Your task to perform on an android device: Search for "bose soundlink mini" on costco.com, select the first entry, and add it to the cart. Image 0: 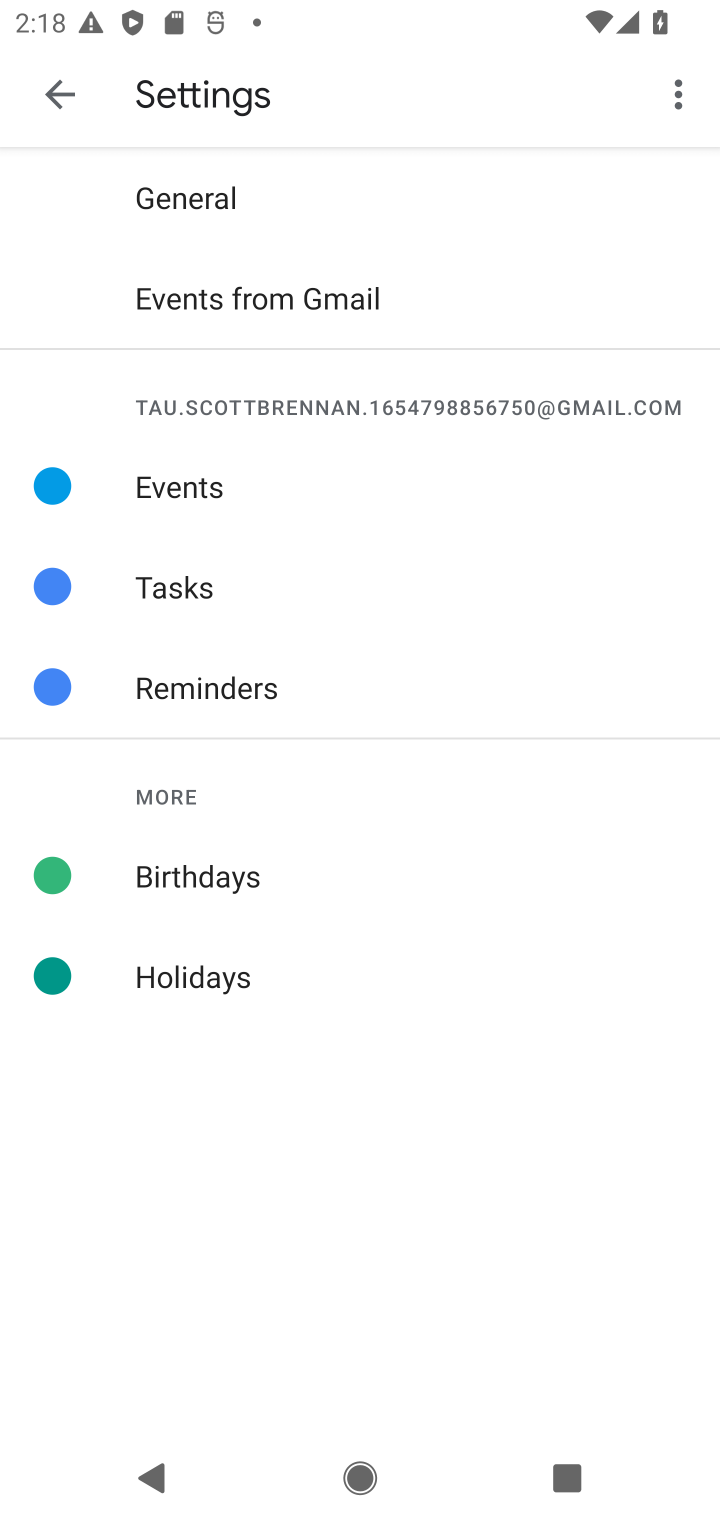
Step 0: press home button
Your task to perform on an android device: Search for "bose soundlink mini" on costco.com, select the first entry, and add it to the cart. Image 1: 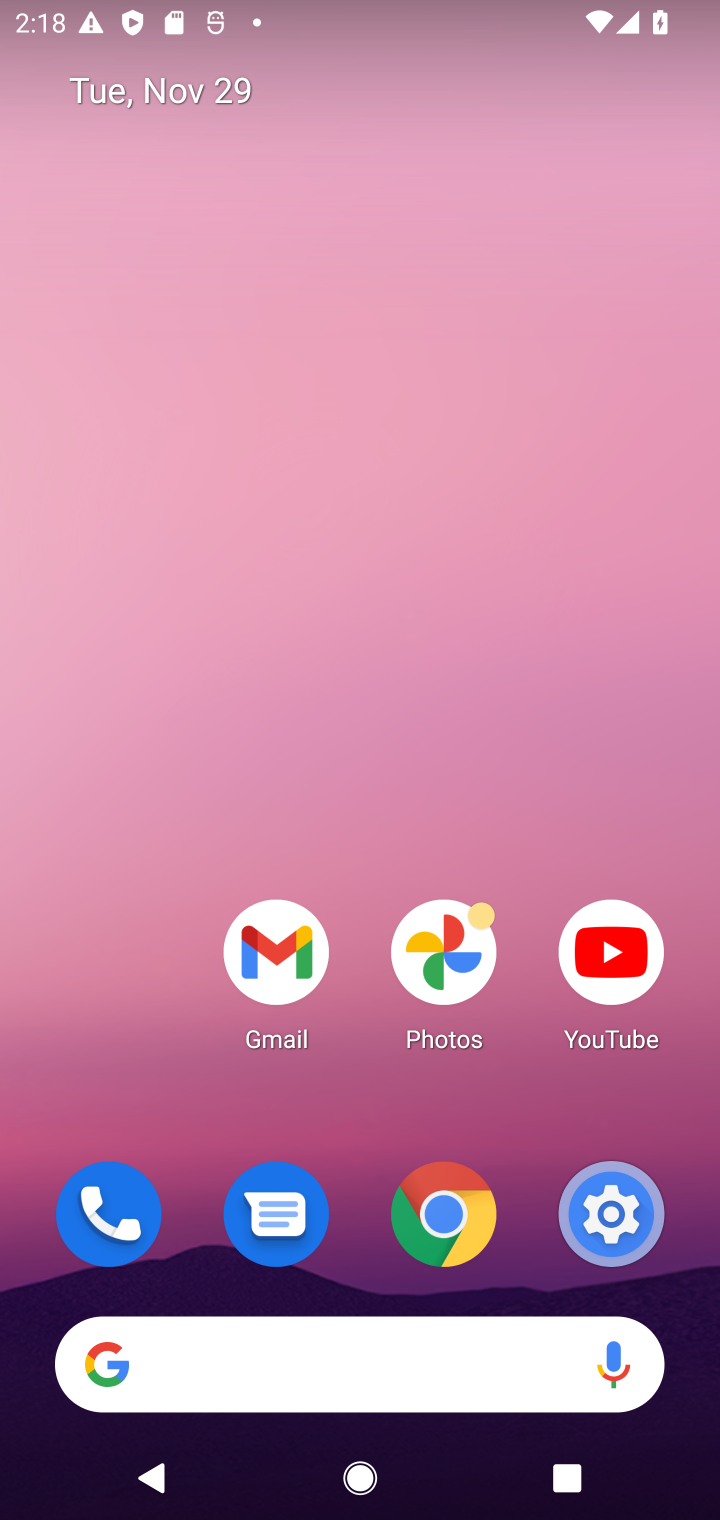
Step 1: click (302, 1377)
Your task to perform on an android device: Search for "bose soundlink mini" on costco.com, select the first entry, and add it to the cart. Image 2: 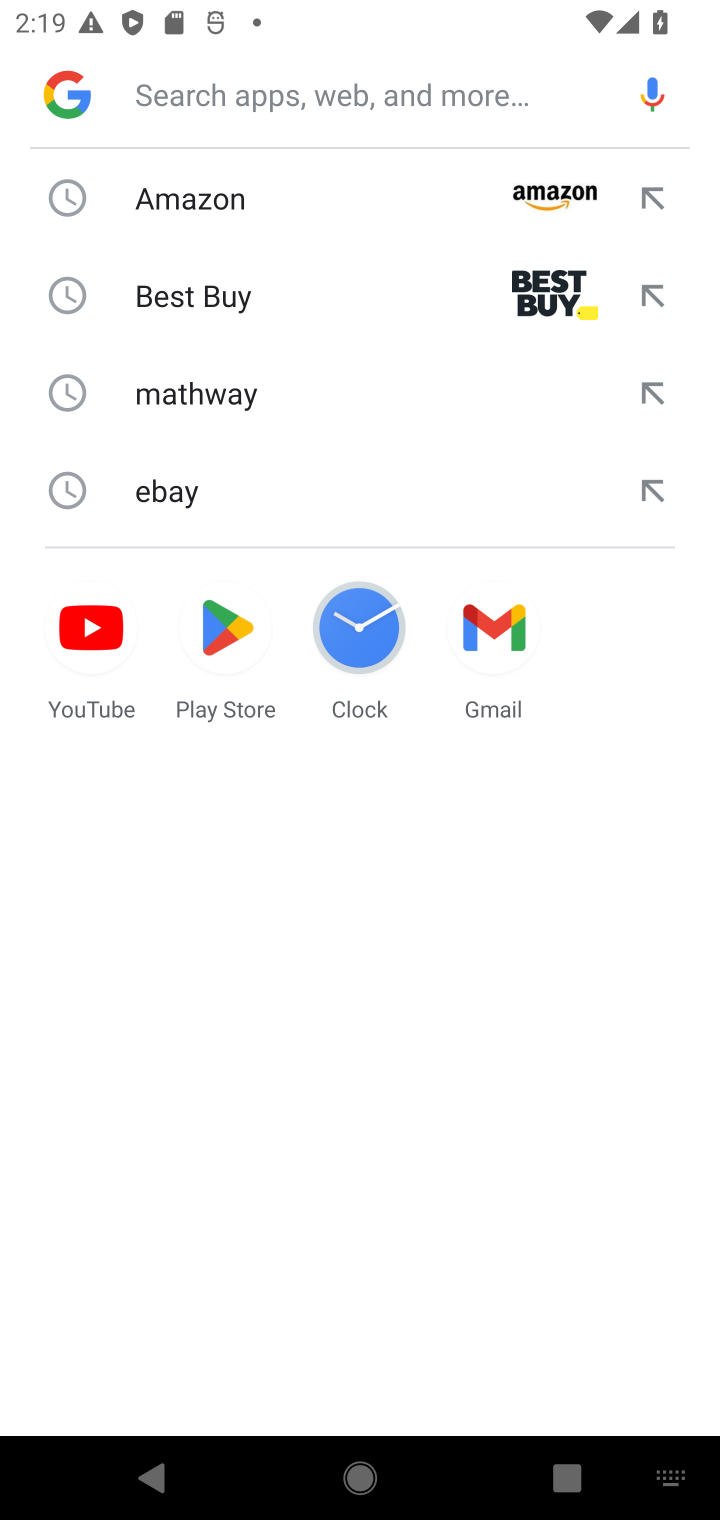
Step 2: type "costco"
Your task to perform on an android device: Search for "bose soundlink mini" on costco.com, select the first entry, and add it to the cart. Image 3: 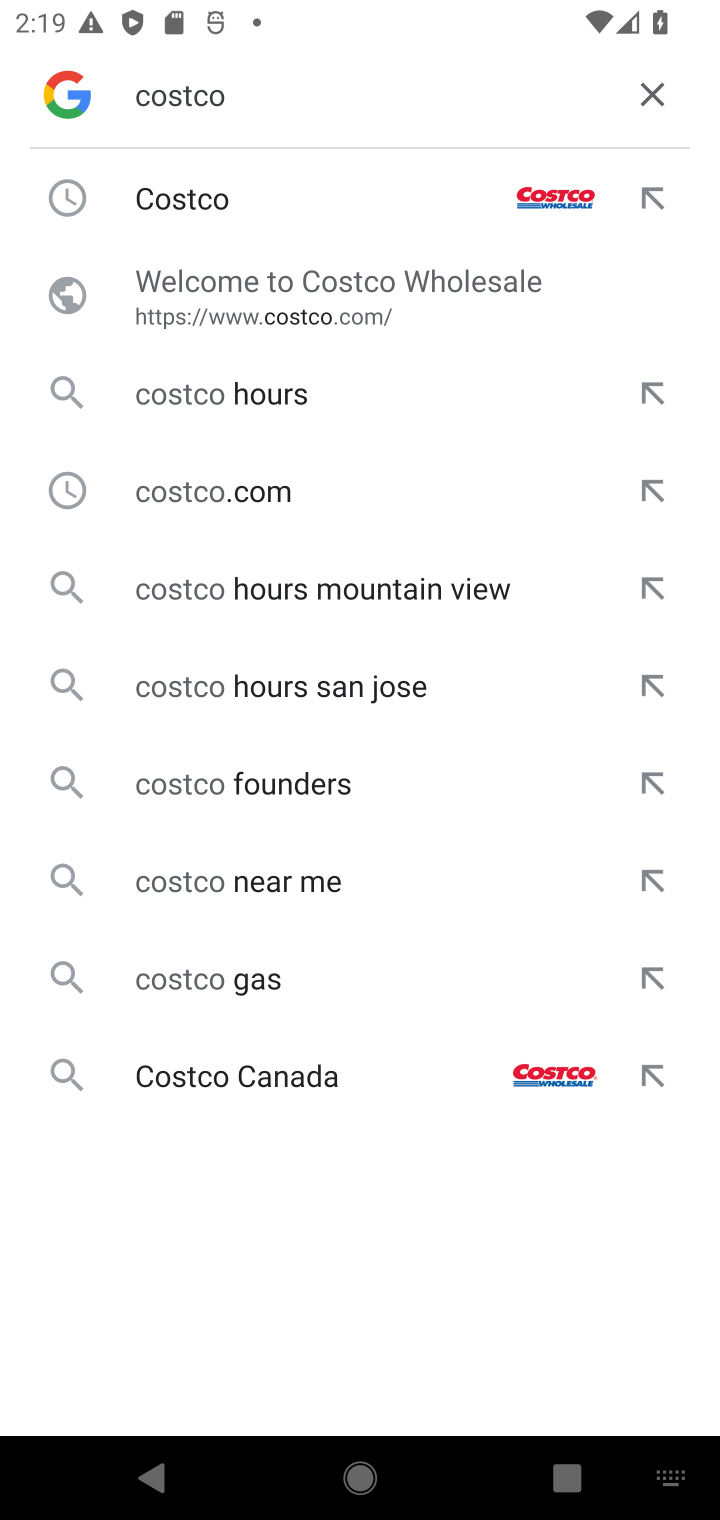
Step 3: click (265, 202)
Your task to perform on an android device: Search for "bose soundlink mini" on costco.com, select the first entry, and add it to the cart. Image 4: 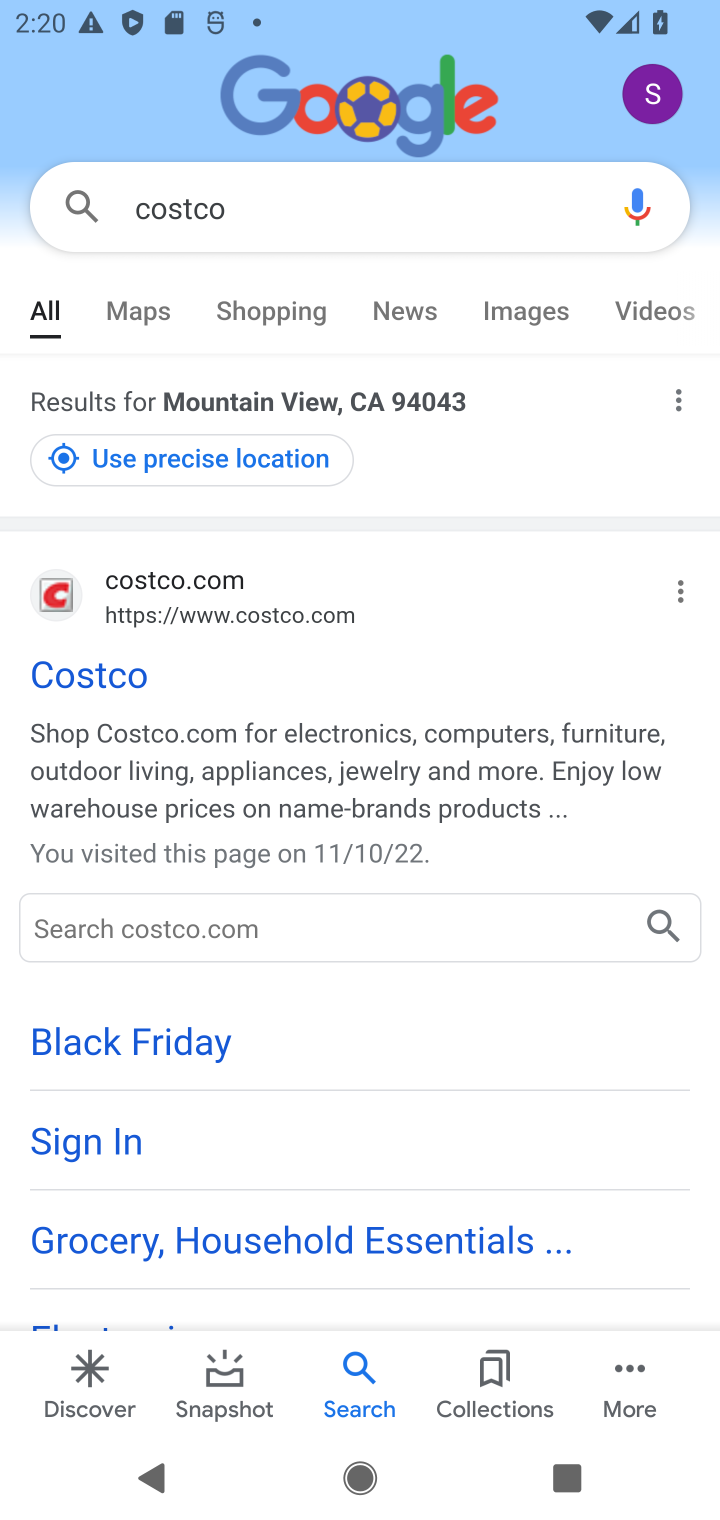
Step 4: click (96, 666)
Your task to perform on an android device: Search for "bose soundlink mini" on costco.com, select the first entry, and add it to the cart. Image 5: 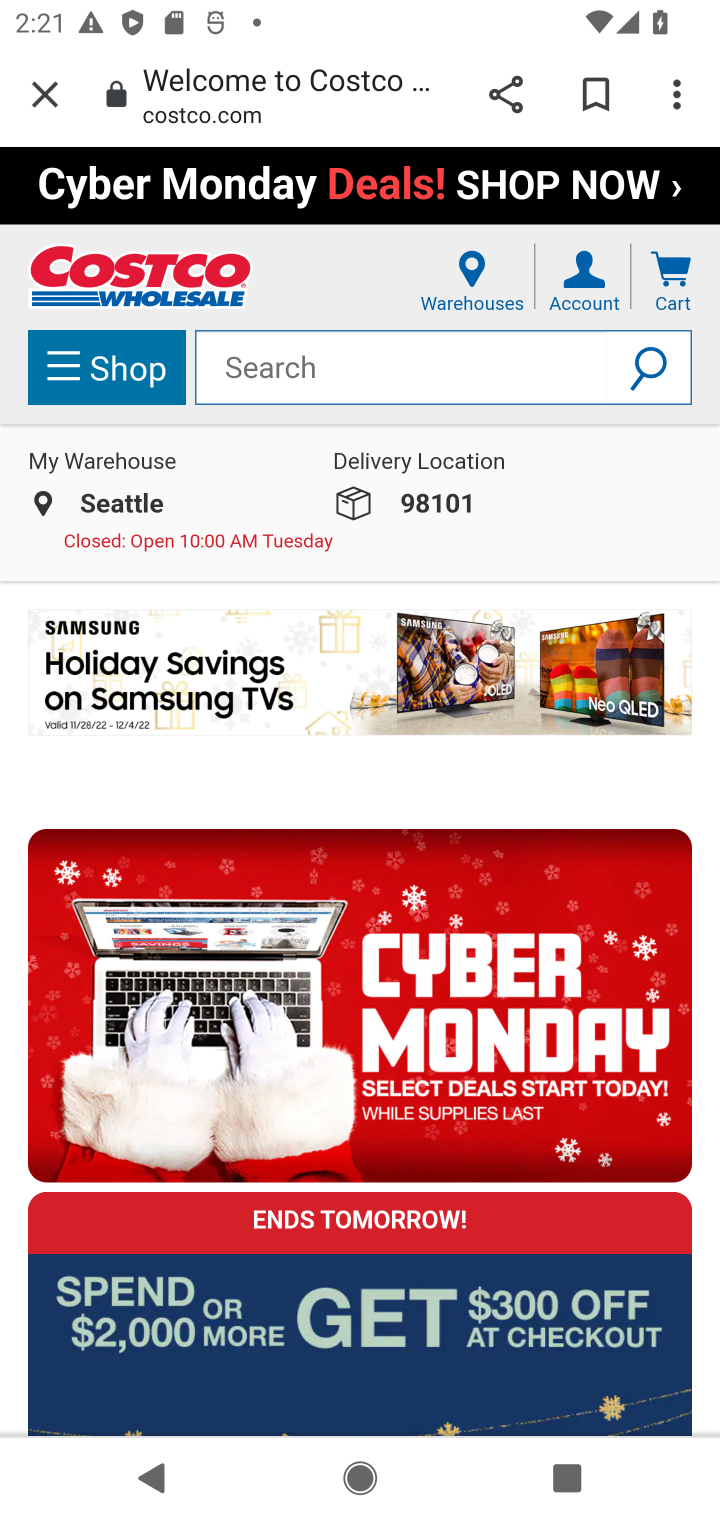
Step 5: task complete